Your task to perform on an android device: turn pop-ups on in chrome Image 0: 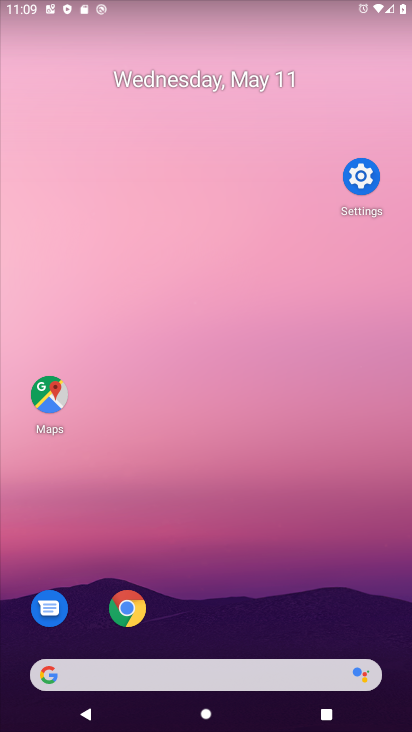
Step 0: drag from (353, 664) to (191, 128)
Your task to perform on an android device: turn pop-ups on in chrome Image 1: 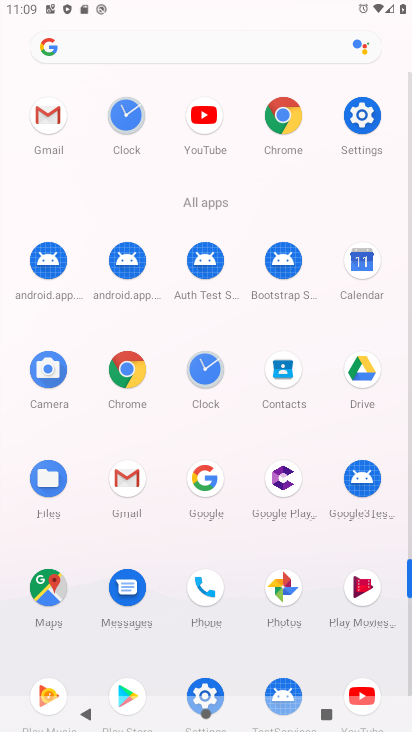
Step 1: click (275, 112)
Your task to perform on an android device: turn pop-ups on in chrome Image 2: 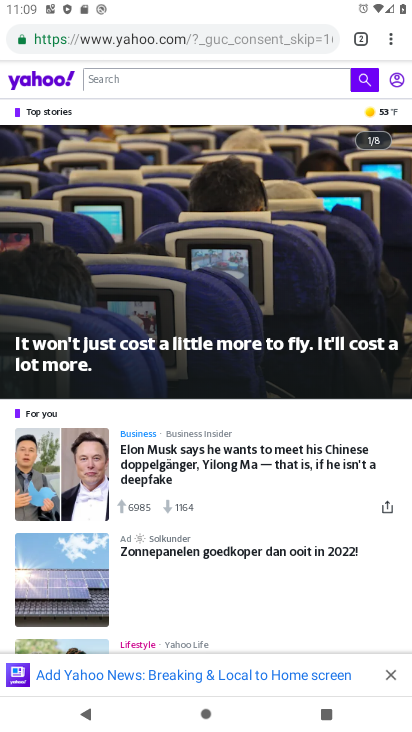
Step 2: drag from (391, 36) to (273, 469)
Your task to perform on an android device: turn pop-ups on in chrome Image 3: 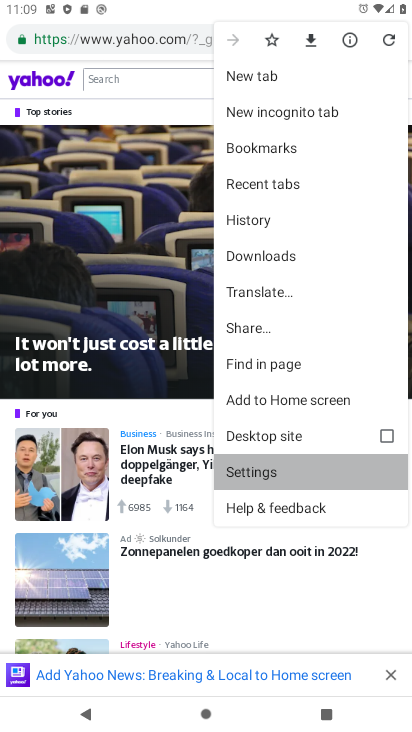
Step 3: click (273, 469)
Your task to perform on an android device: turn pop-ups on in chrome Image 4: 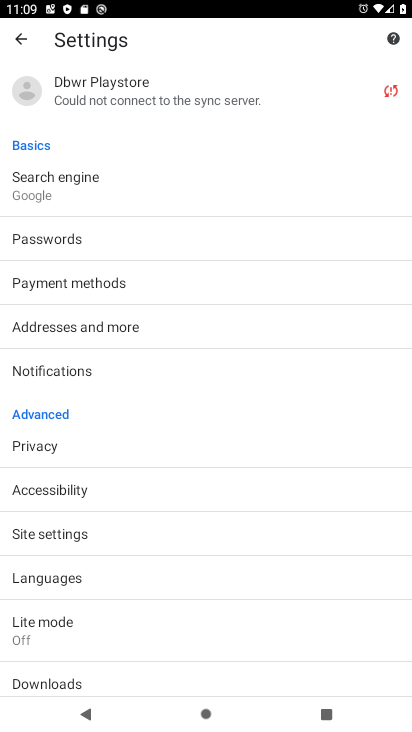
Step 4: drag from (203, 496) to (180, 110)
Your task to perform on an android device: turn pop-ups on in chrome Image 5: 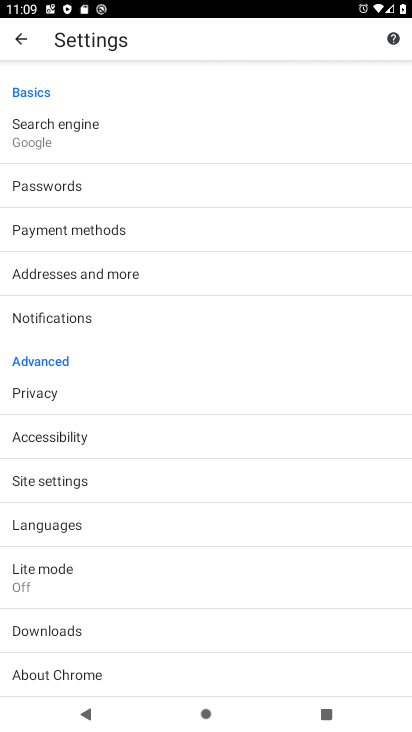
Step 5: click (57, 480)
Your task to perform on an android device: turn pop-ups on in chrome Image 6: 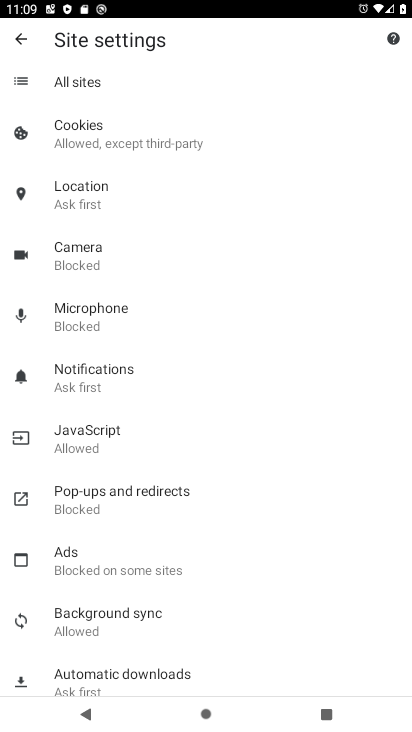
Step 6: click (94, 496)
Your task to perform on an android device: turn pop-ups on in chrome Image 7: 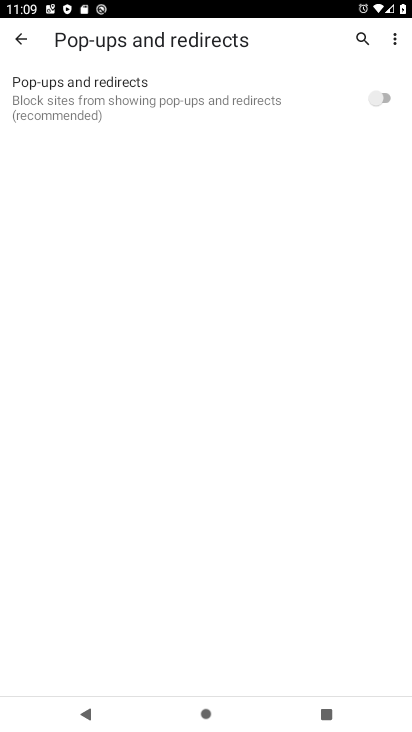
Step 7: click (372, 95)
Your task to perform on an android device: turn pop-ups on in chrome Image 8: 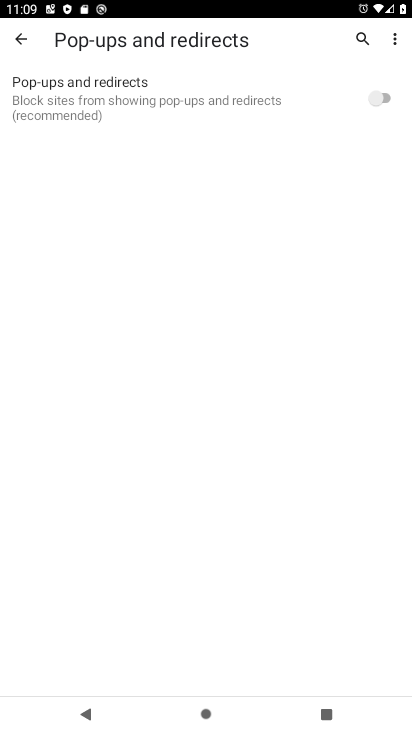
Step 8: click (385, 100)
Your task to perform on an android device: turn pop-ups on in chrome Image 9: 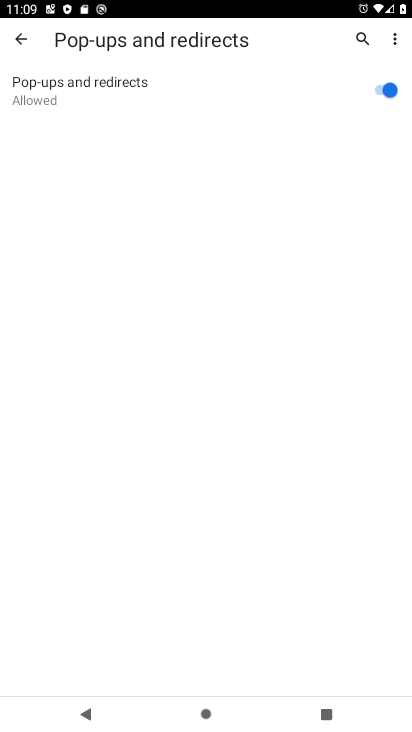
Step 9: task complete